Your task to perform on an android device: Go to Google maps Image 0: 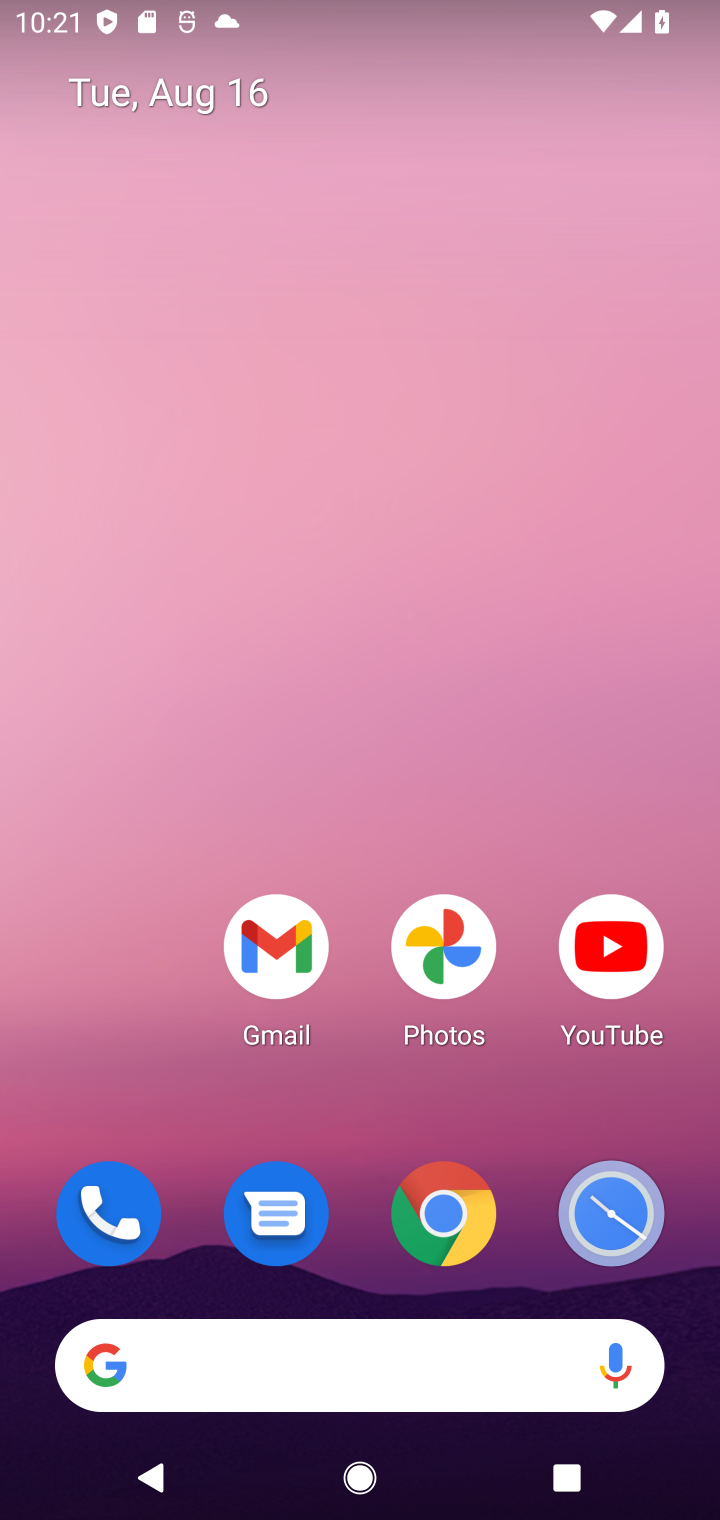
Step 0: drag from (350, 1183) to (443, 687)
Your task to perform on an android device: Go to Google maps Image 1: 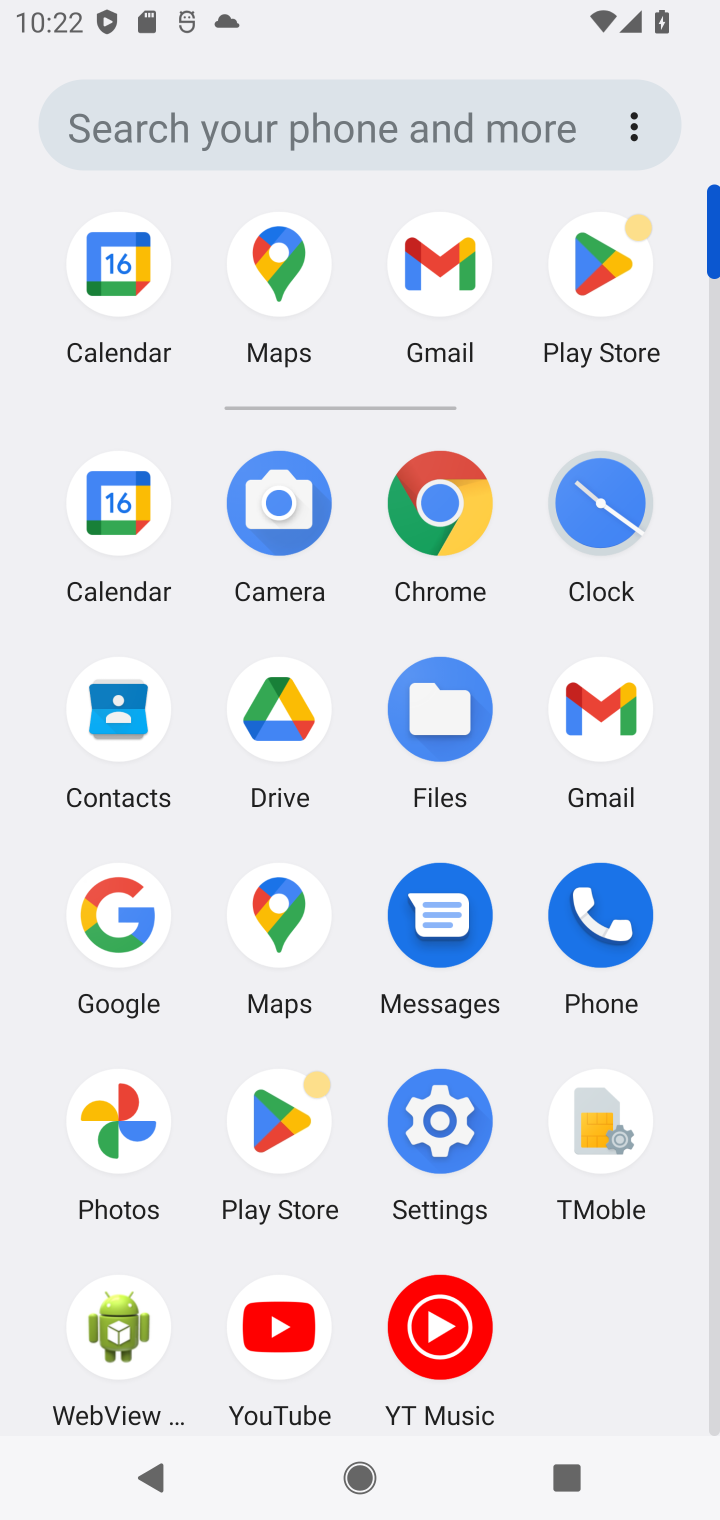
Step 1: click (266, 879)
Your task to perform on an android device: Go to Google maps Image 2: 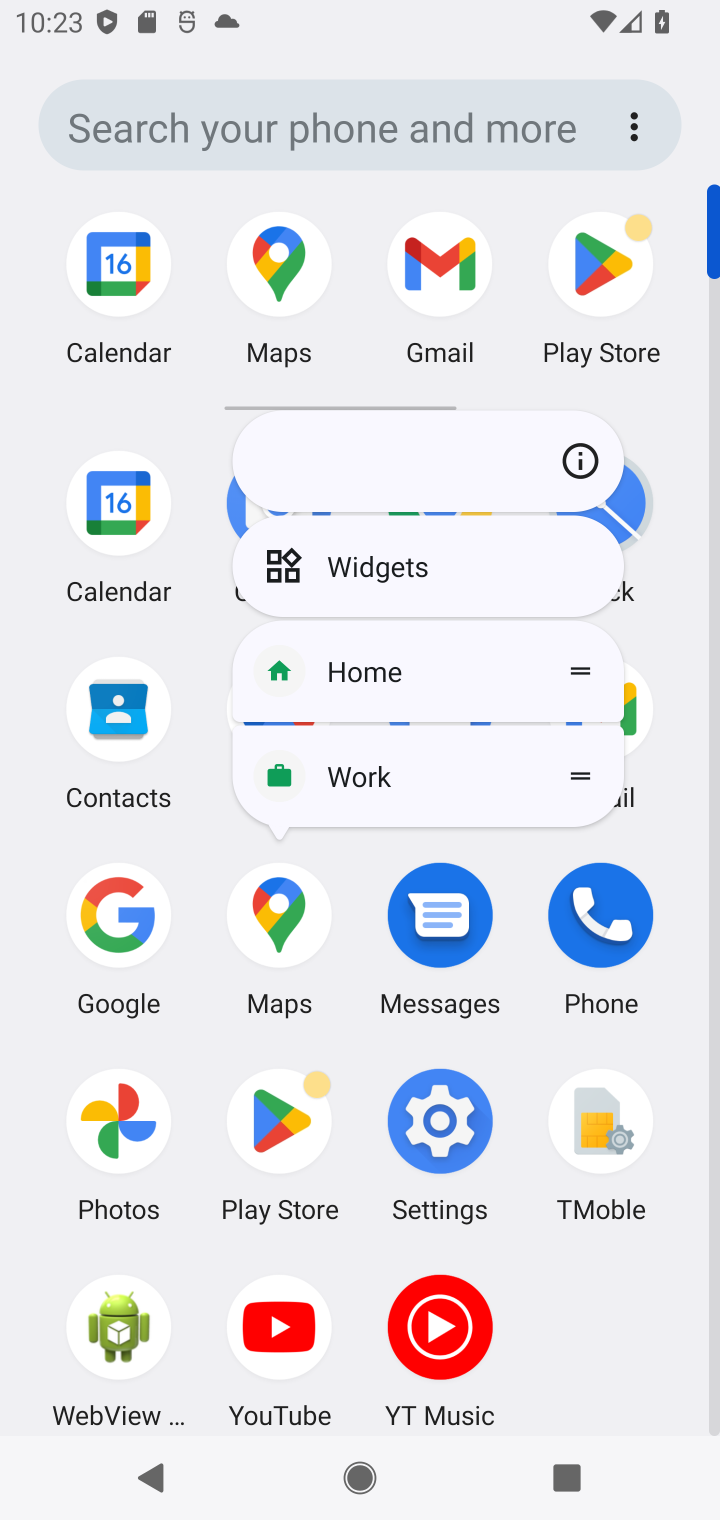
Step 2: click (662, 630)
Your task to perform on an android device: Go to Google maps Image 3: 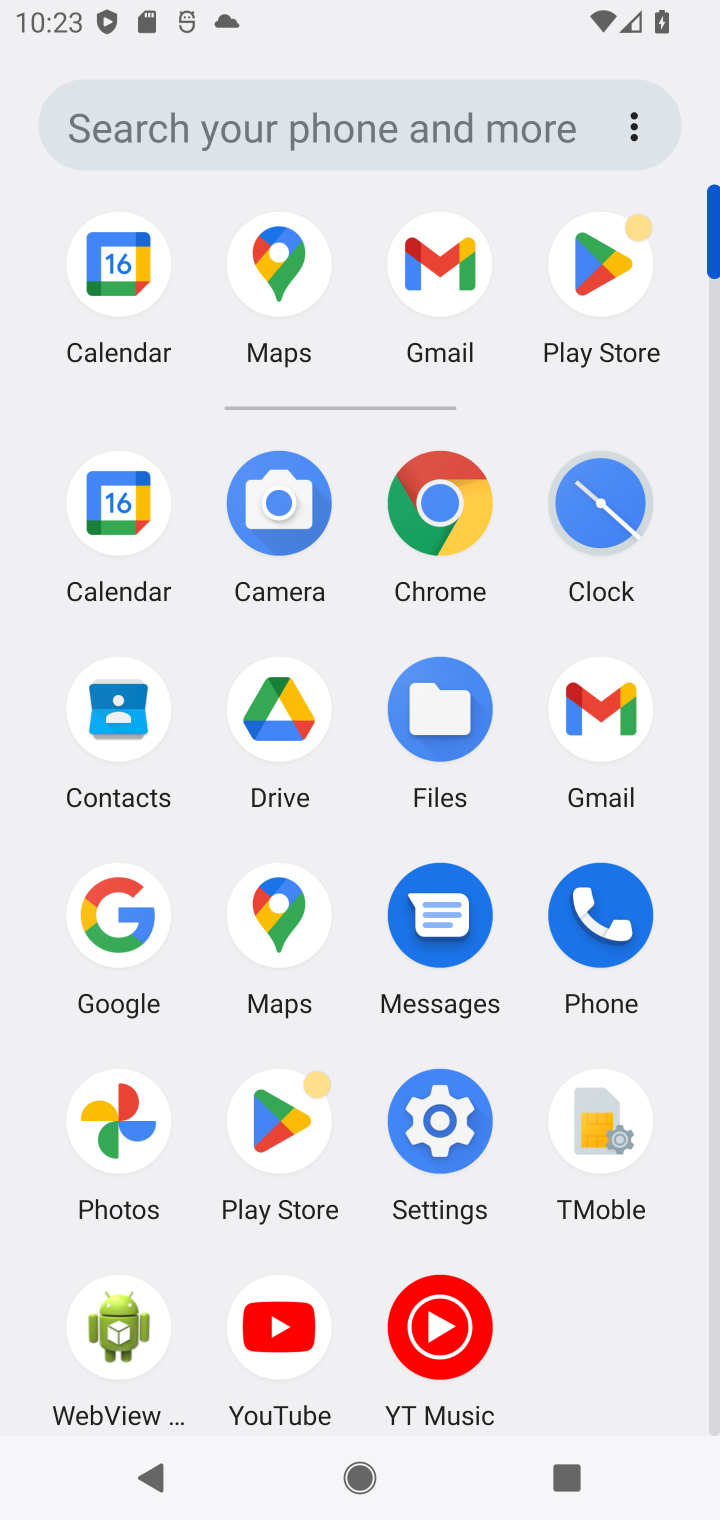
Step 3: click (275, 885)
Your task to perform on an android device: Go to Google maps Image 4: 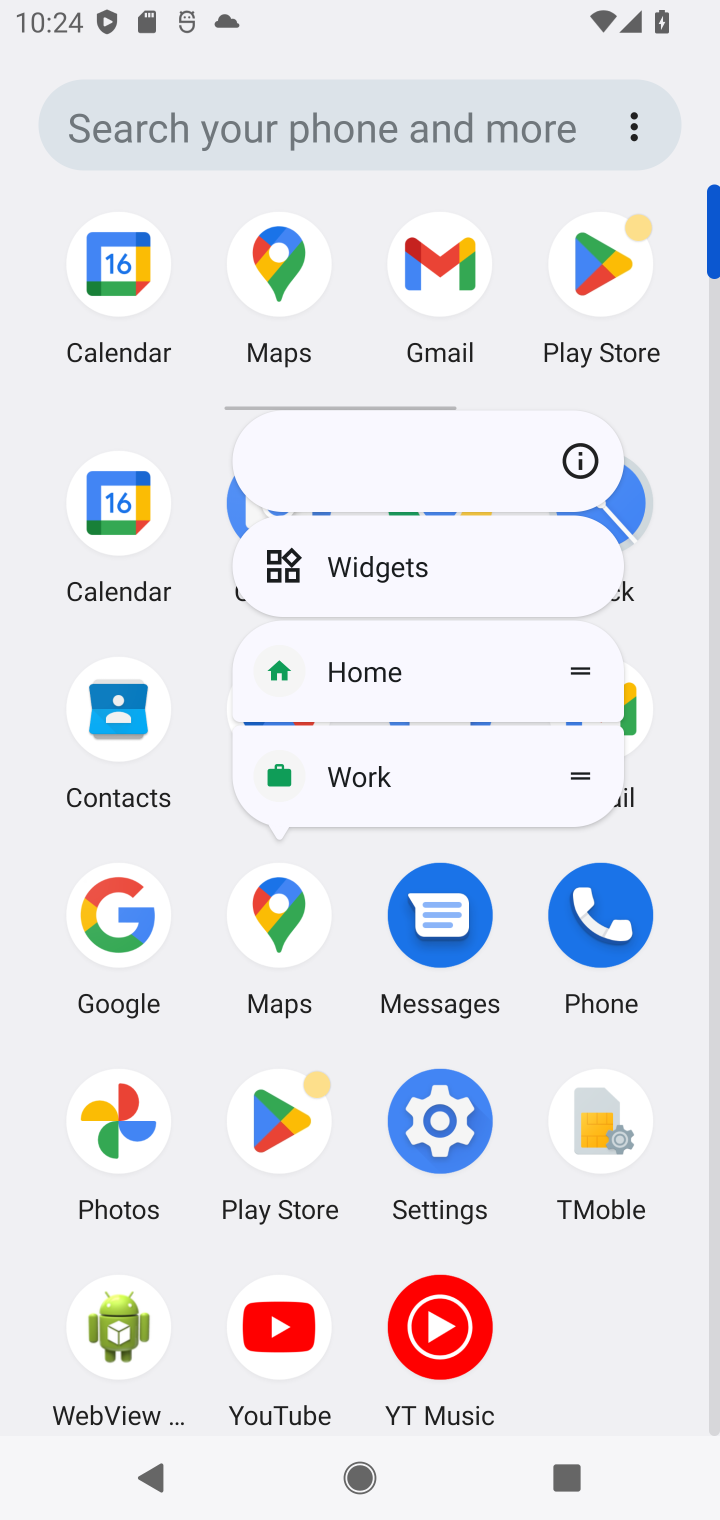
Step 4: click (271, 889)
Your task to perform on an android device: Go to Google maps Image 5: 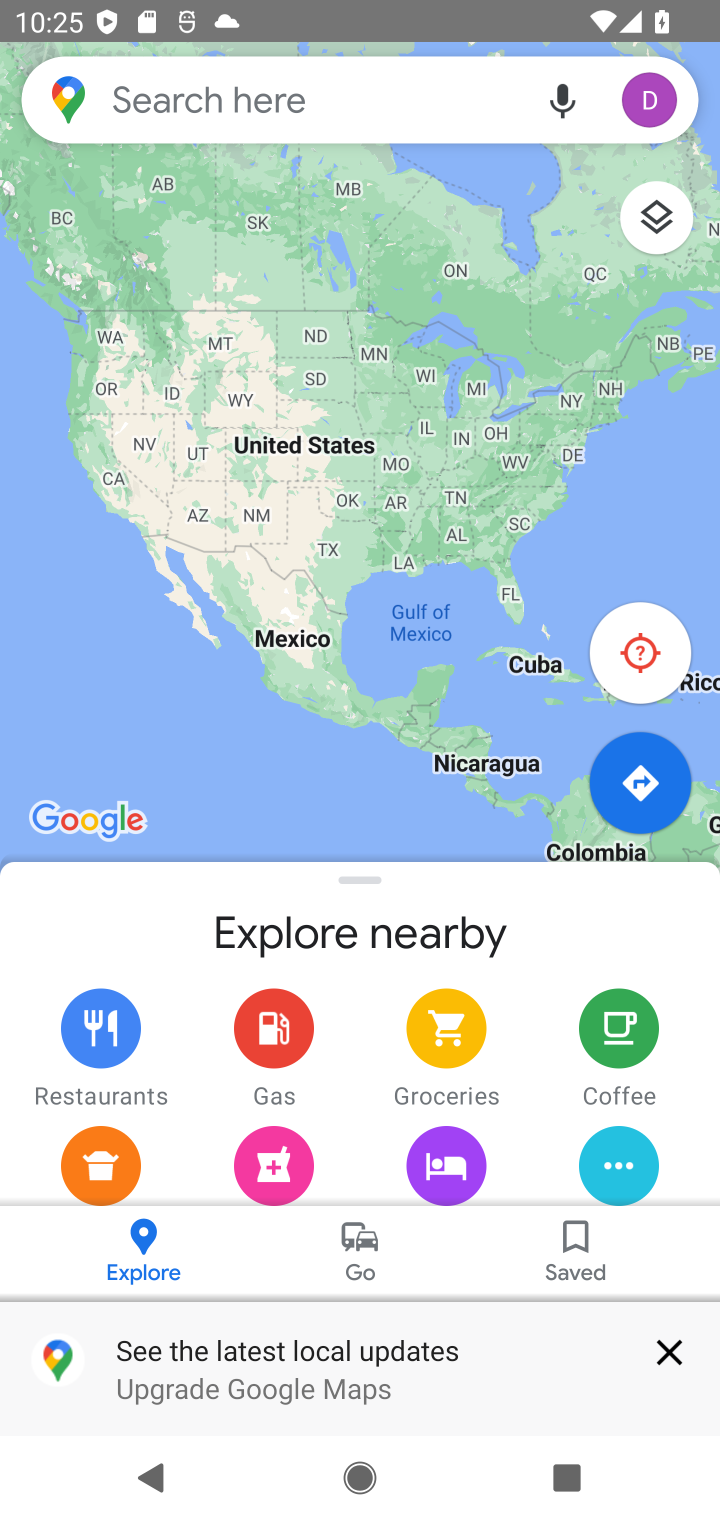
Step 5: task complete